Your task to perform on an android device: open app "Google Calendar" (install if not already installed) Image 0: 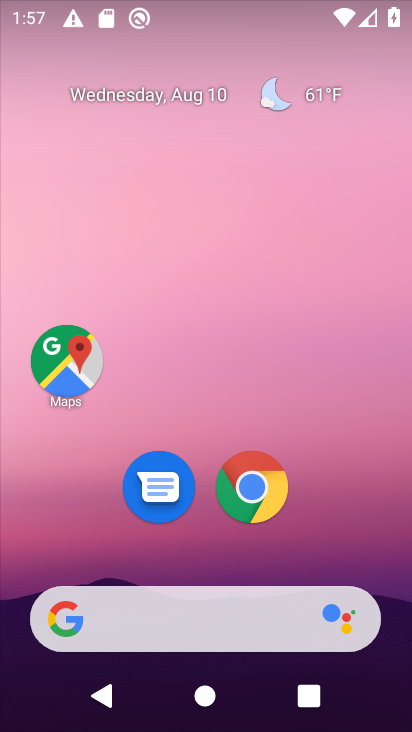
Step 0: drag from (175, 443) to (161, 205)
Your task to perform on an android device: open app "Google Calendar" (install if not already installed) Image 1: 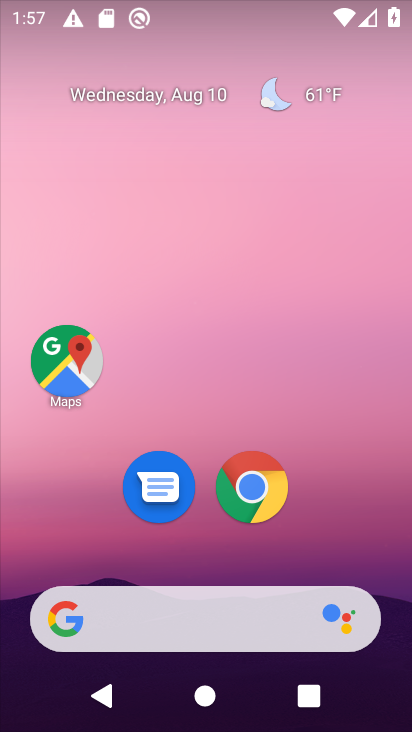
Step 1: drag from (189, 605) to (189, 171)
Your task to perform on an android device: open app "Google Calendar" (install if not already installed) Image 2: 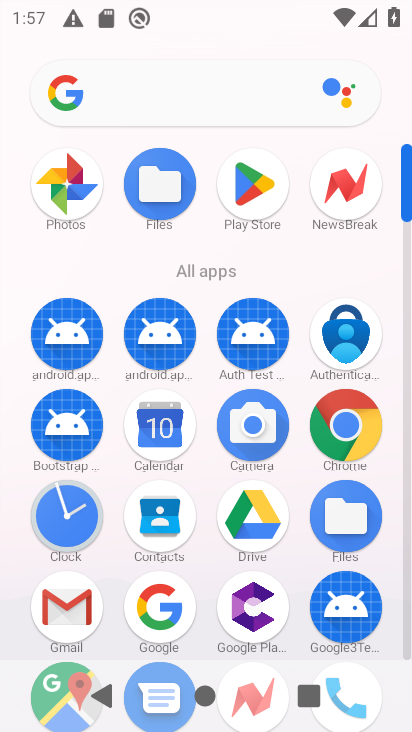
Step 2: click (161, 423)
Your task to perform on an android device: open app "Google Calendar" (install if not already installed) Image 3: 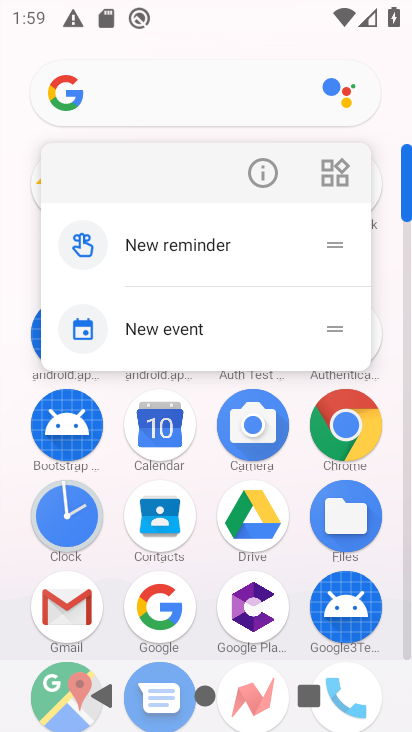
Step 3: click (160, 431)
Your task to perform on an android device: open app "Google Calendar" (install if not already installed) Image 4: 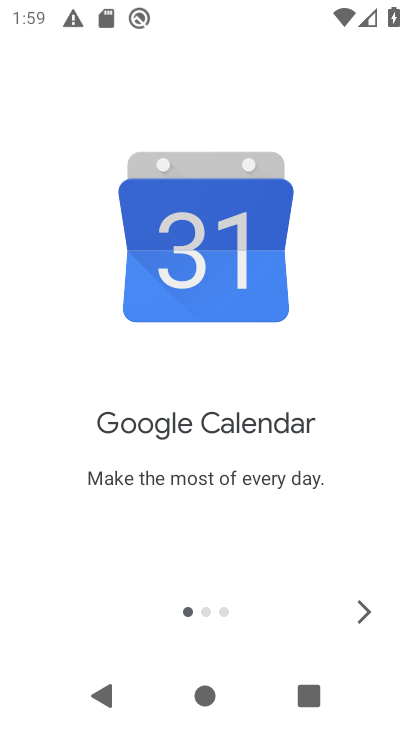
Step 4: click (355, 614)
Your task to perform on an android device: open app "Google Calendar" (install if not already installed) Image 5: 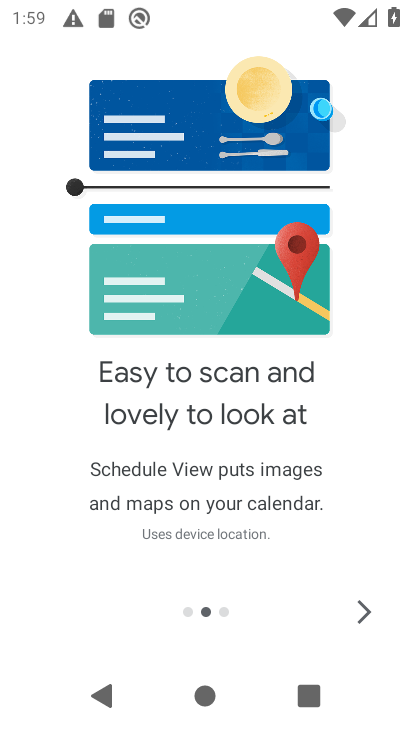
Step 5: click (355, 614)
Your task to perform on an android device: open app "Google Calendar" (install if not already installed) Image 6: 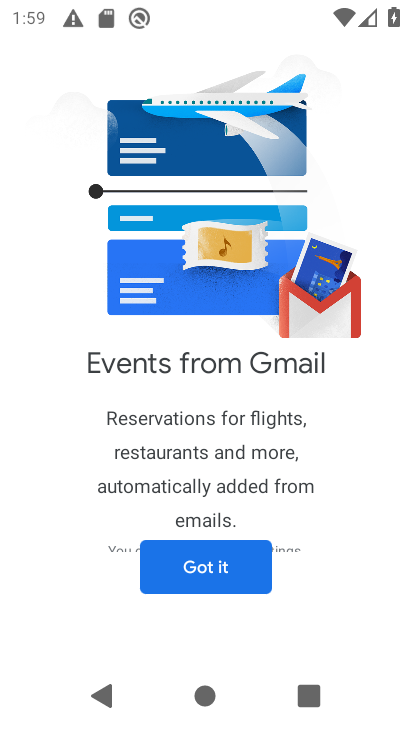
Step 6: click (201, 564)
Your task to perform on an android device: open app "Google Calendar" (install if not already installed) Image 7: 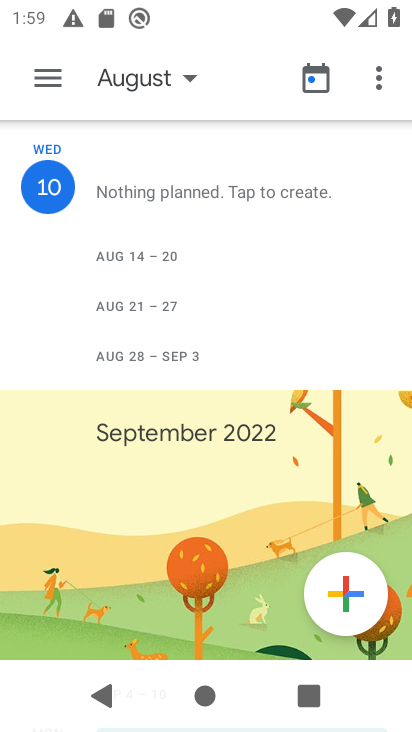
Step 7: task complete